Your task to perform on an android device: turn vacation reply on in the gmail app Image 0: 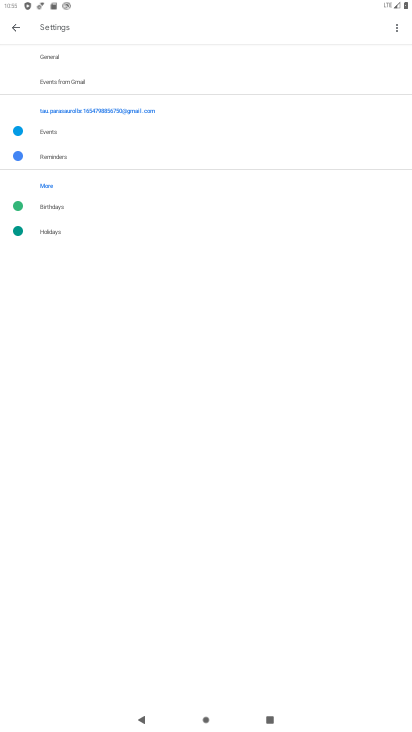
Step 0: press home button
Your task to perform on an android device: turn vacation reply on in the gmail app Image 1: 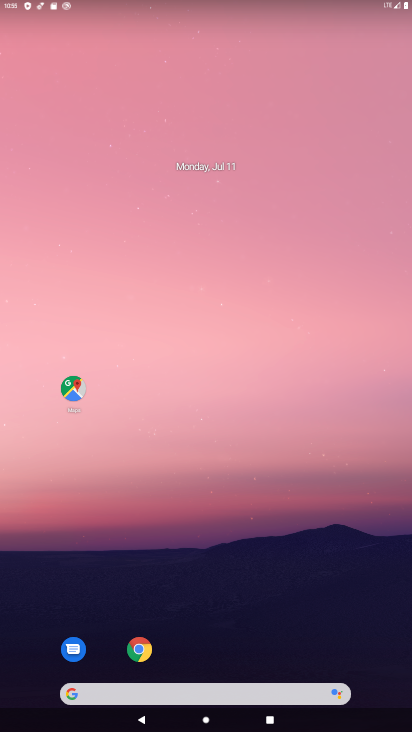
Step 1: drag from (269, 656) to (258, 155)
Your task to perform on an android device: turn vacation reply on in the gmail app Image 2: 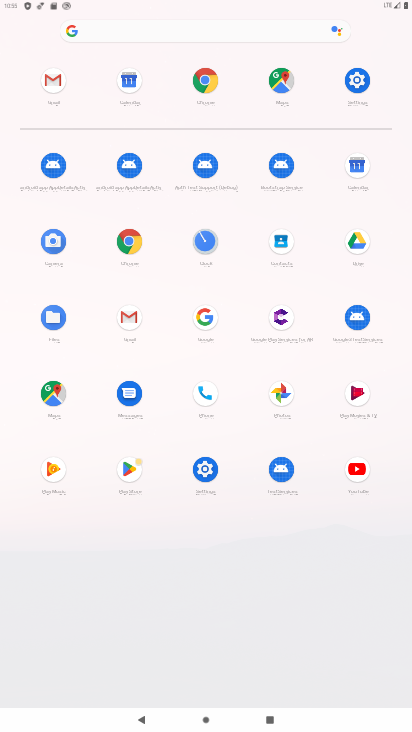
Step 2: click (50, 82)
Your task to perform on an android device: turn vacation reply on in the gmail app Image 3: 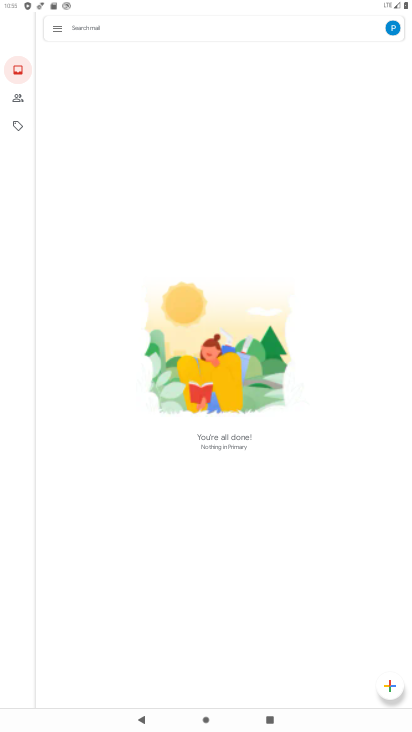
Step 3: click (56, 26)
Your task to perform on an android device: turn vacation reply on in the gmail app Image 4: 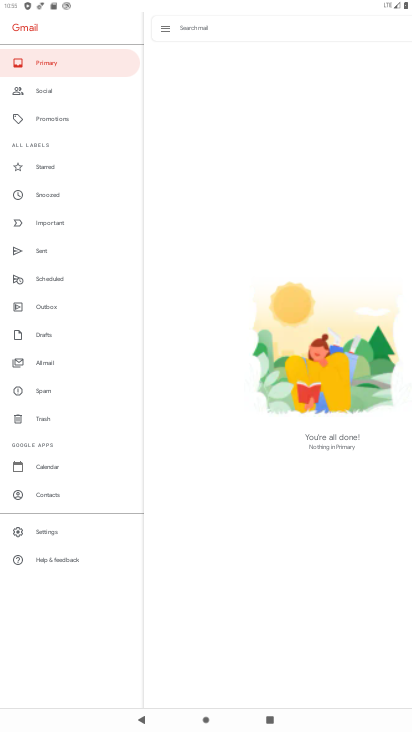
Step 4: click (66, 534)
Your task to perform on an android device: turn vacation reply on in the gmail app Image 5: 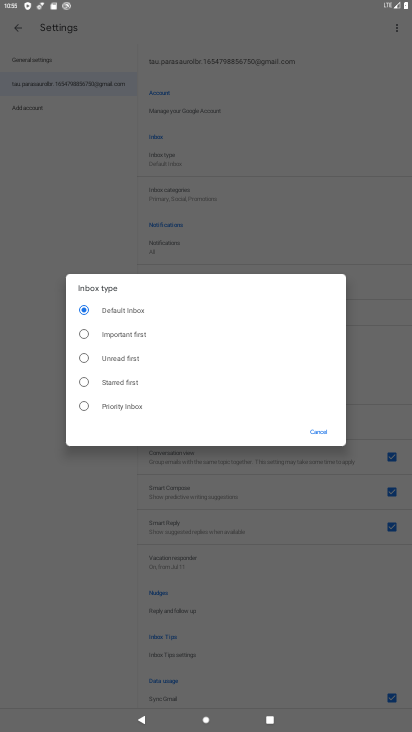
Step 5: click (321, 429)
Your task to perform on an android device: turn vacation reply on in the gmail app Image 6: 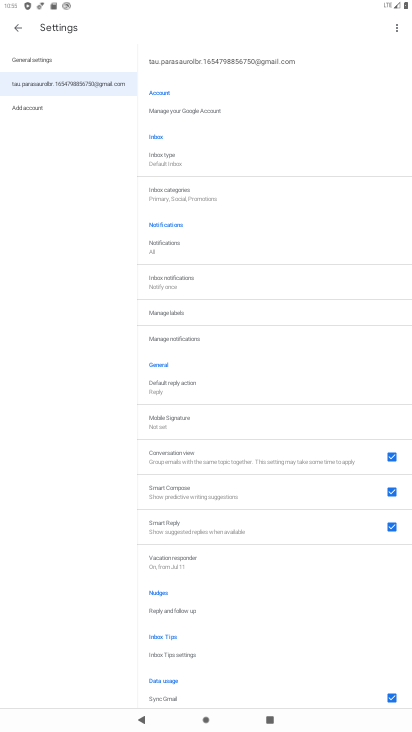
Step 6: drag from (261, 612) to (306, 142)
Your task to perform on an android device: turn vacation reply on in the gmail app Image 7: 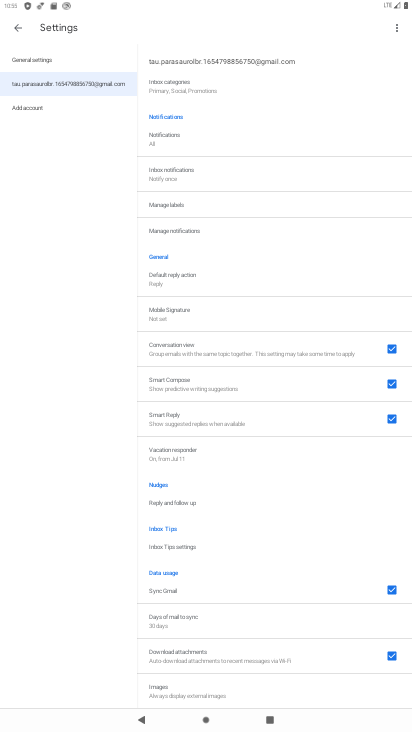
Step 7: click (268, 455)
Your task to perform on an android device: turn vacation reply on in the gmail app Image 8: 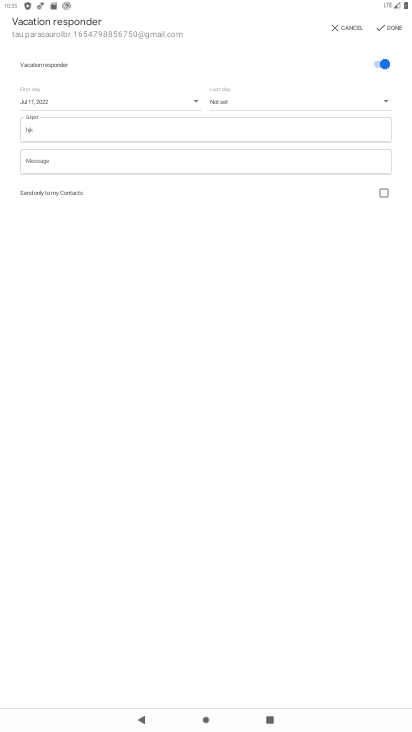
Step 8: task complete